Your task to perform on an android device: Open Wikipedia Image 0: 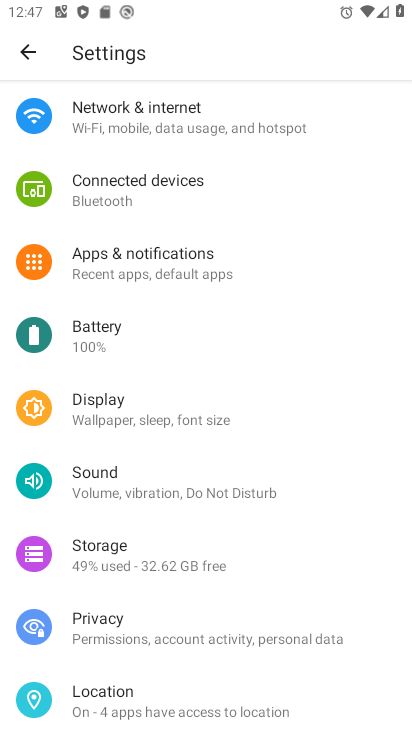
Step 0: press back button
Your task to perform on an android device: Open Wikipedia Image 1: 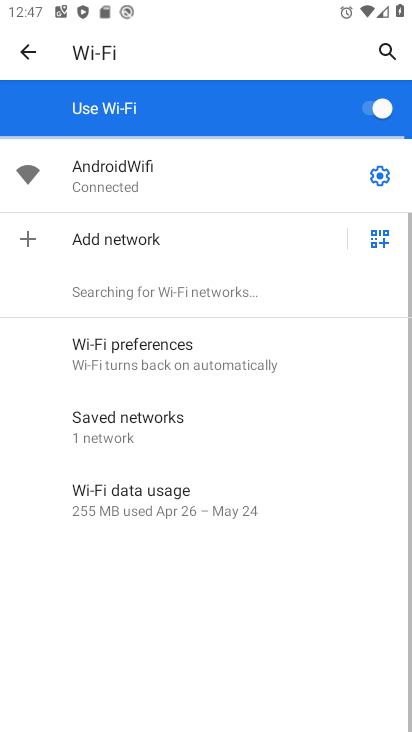
Step 1: press back button
Your task to perform on an android device: Open Wikipedia Image 2: 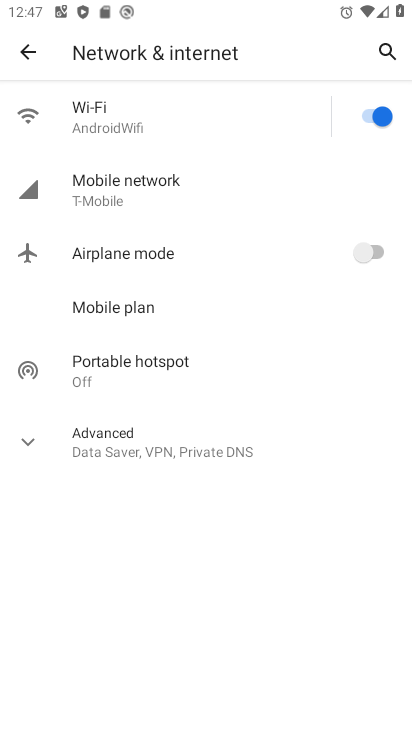
Step 2: press home button
Your task to perform on an android device: Open Wikipedia Image 3: 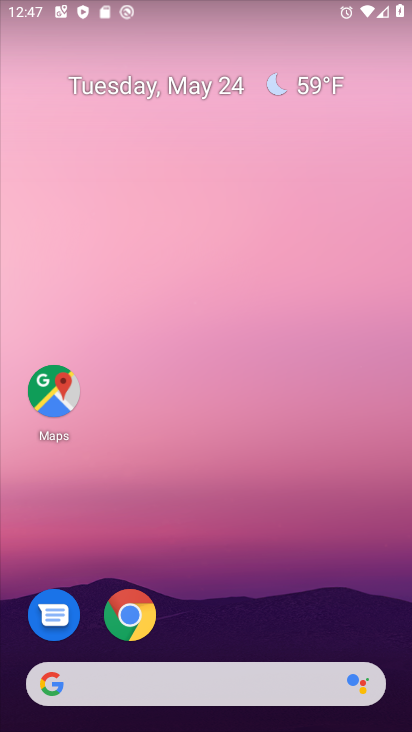
Step 3: drag from (255, 552) to (257, 52)
Your task to perform on an android device: Open Wikipedia Image 4: 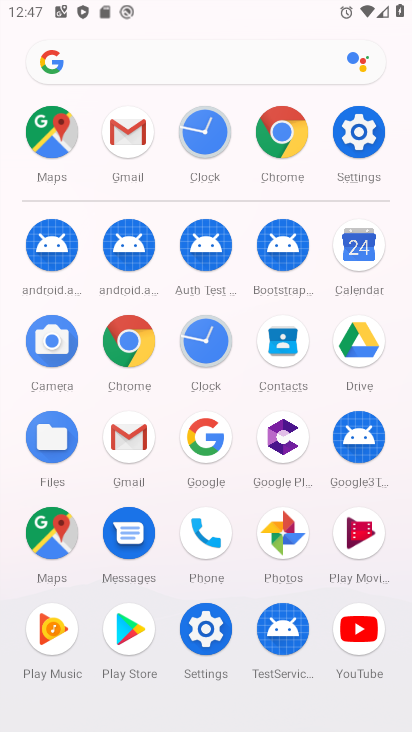
Step 4: click (128, 337)
Your task to perform on an android device: Open Wikipedia Image 5: 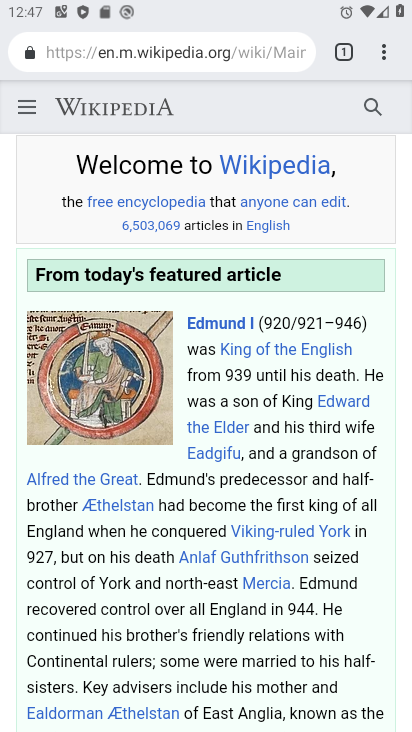
Step 5: task complete